Your task to perform on an android device: Do I have any events tomorrow? Image 0: 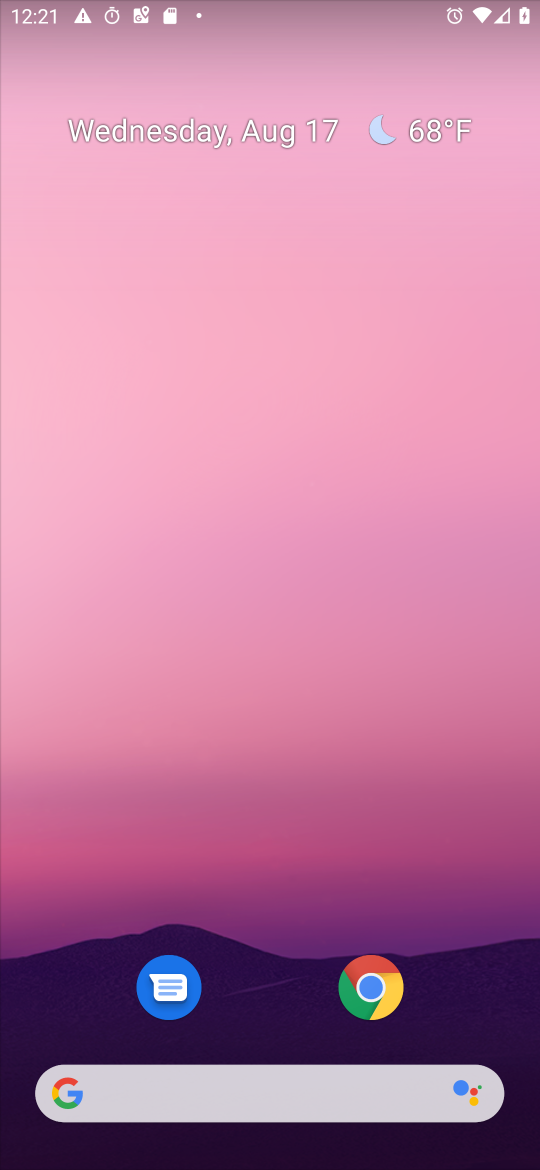
Step 0: drag from (9, 1125) to (189, 687)
Your task to perform on an android device: Do I have any events tomorrow? Image 1: 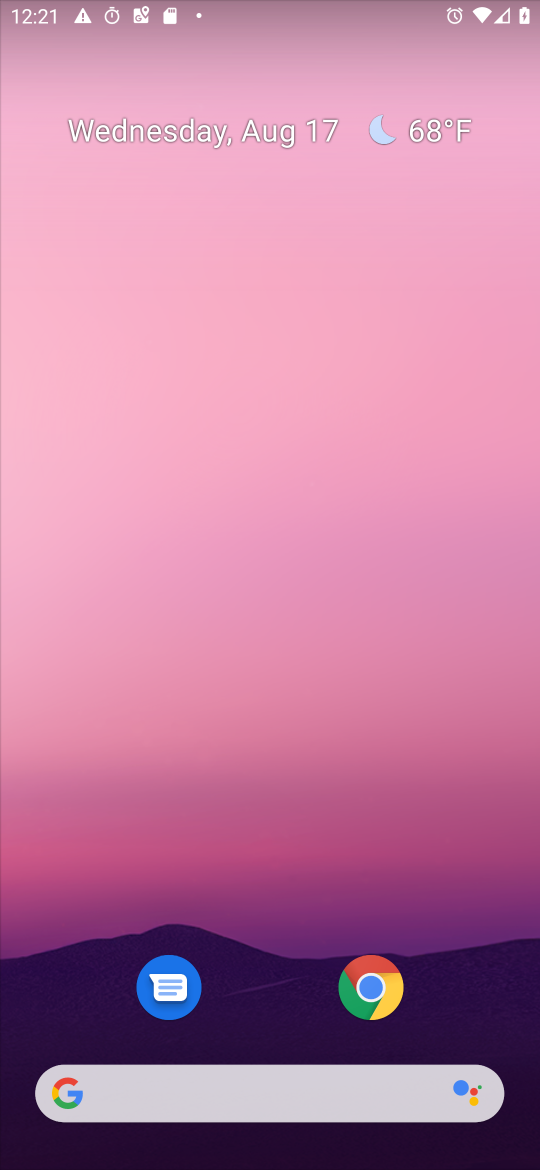
Step 1: drag from (33, 1134) to (151, 397)
Your task to perform on an android device: Do I have any events tomorrow? Image 2: 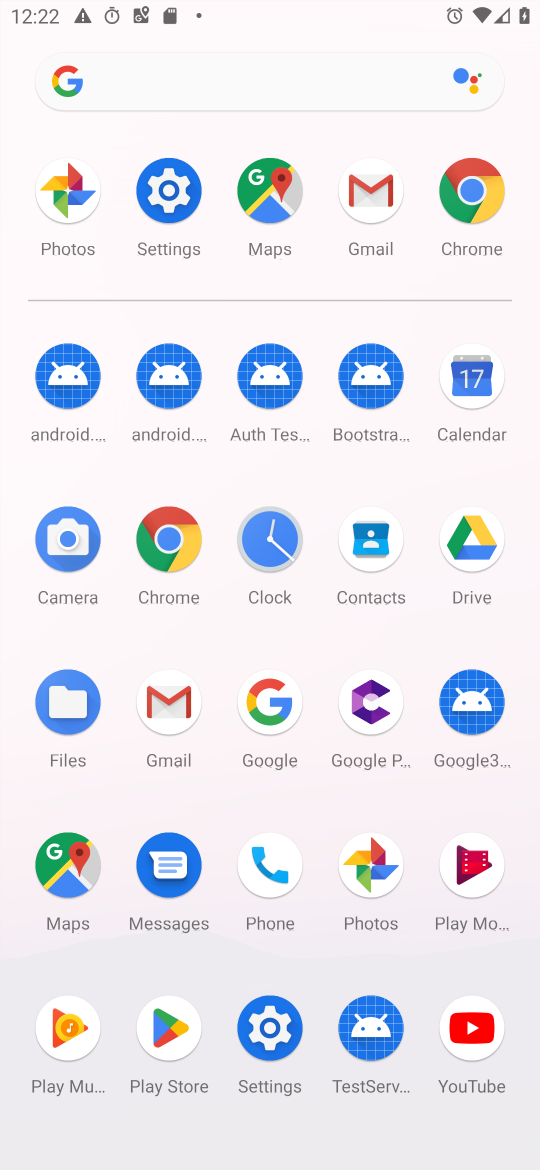
Step 2: click (449, 376)
Your task to perform on an android device: Do I have any events tomorrow? Image 3: 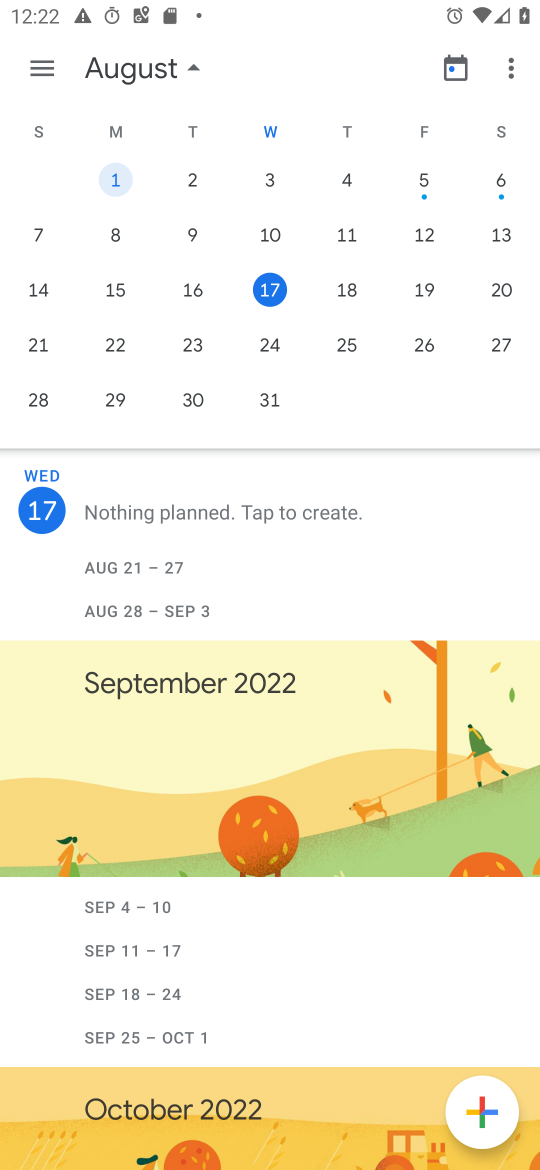
Step 3: task complete